Your task to perform on an android device: turn on notifications settings in the gmail app Image 0: 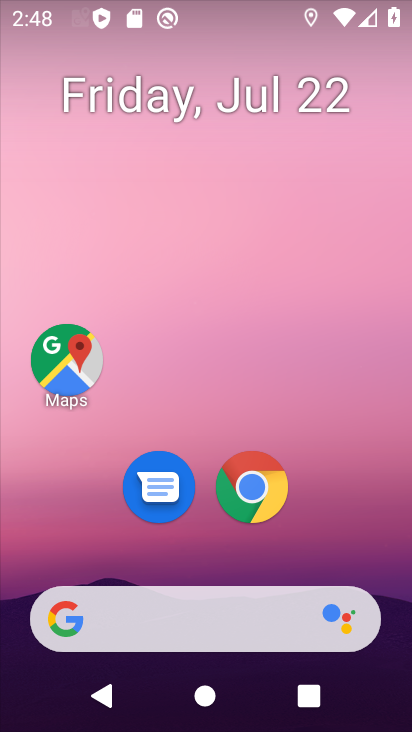
Step 0: drag from (213, 551) to (231, 56)
Your task to perform on an android device: turn on notifications settings in the gmail app Image 1: 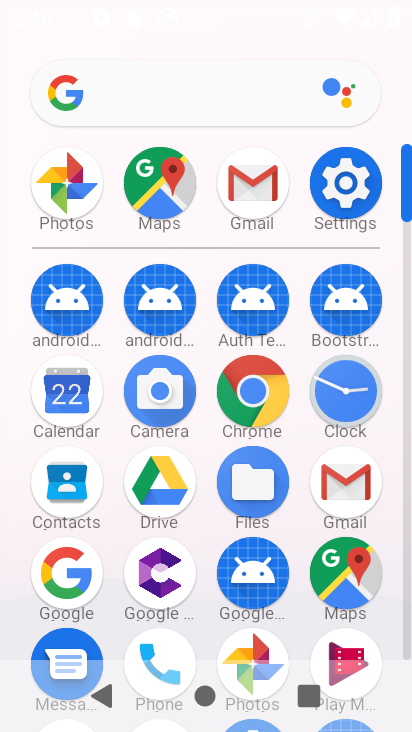
Step 1: click (261, 186)
Your task to perform on an android device: turn on notifications settings in the gmail app Image 2: 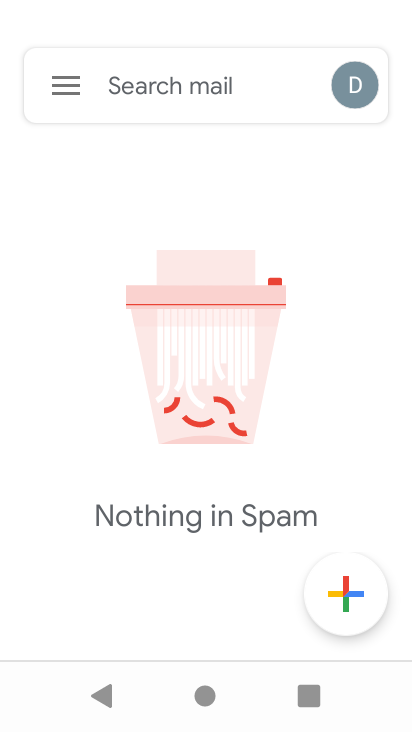
Step 2: click (65, 87)
Your task to perform on an android device: turn on notifications settings in the gmail app Image 3: 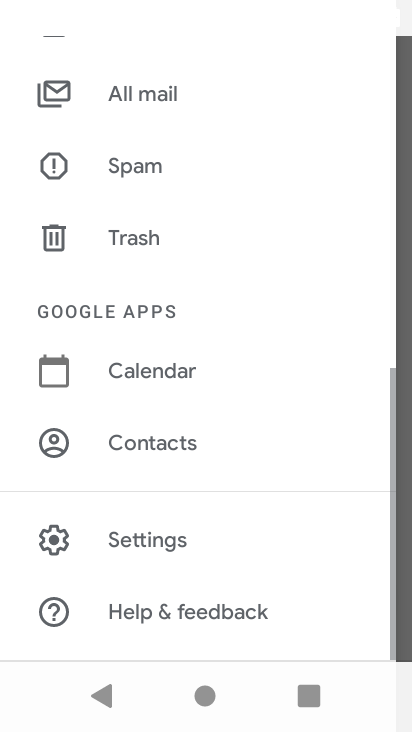
Step 3: click (120, 542)
Your task to perform on an android device: turn on notifications settings in the gmail app Image 4: 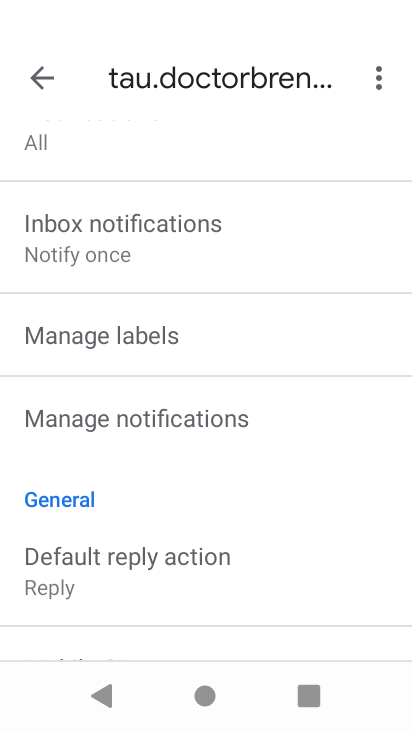
Step 4: click (122, 415)
Your task to perform on an android device: turn on notifications settings in the gmail app Image 5: 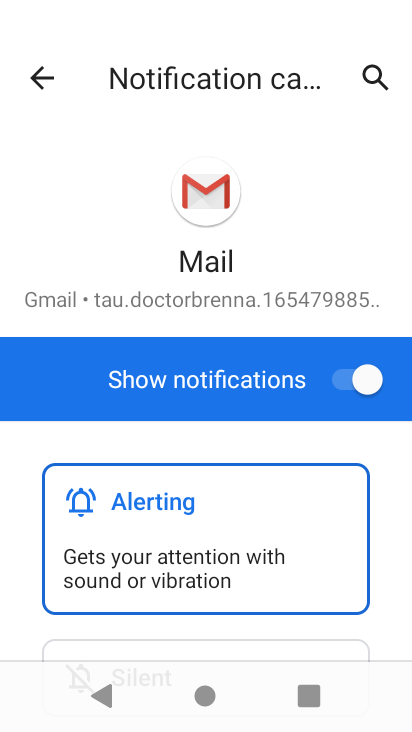
Step 5: task complete